Your task to perform on an android device: Add dell alienware to the cart on walmart Image 0: 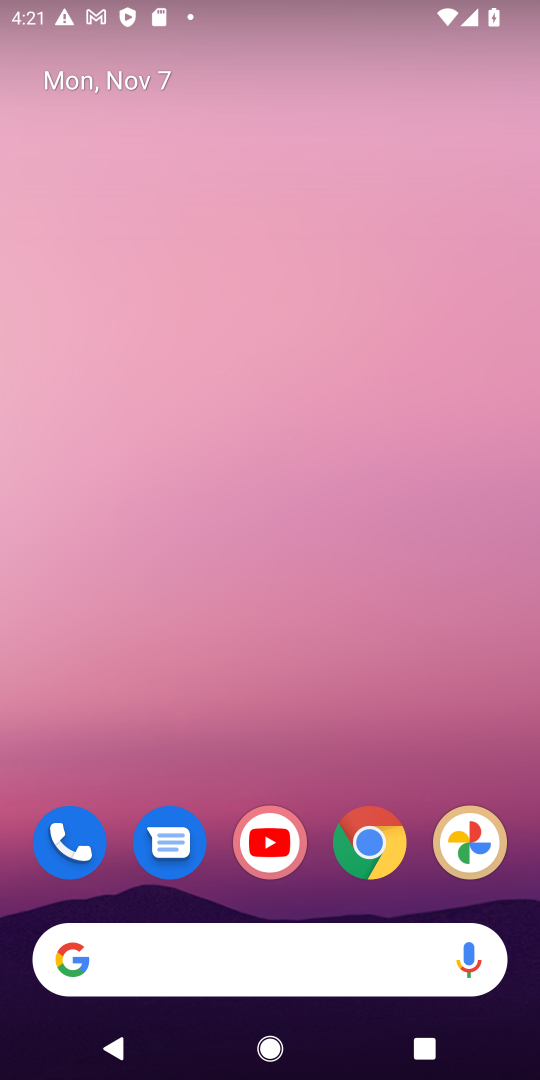
Step 0: drag from (203, 811) to (345, 10)
Your task to perform on an android device: Add dell alienware to the cart on walmart Image 1: 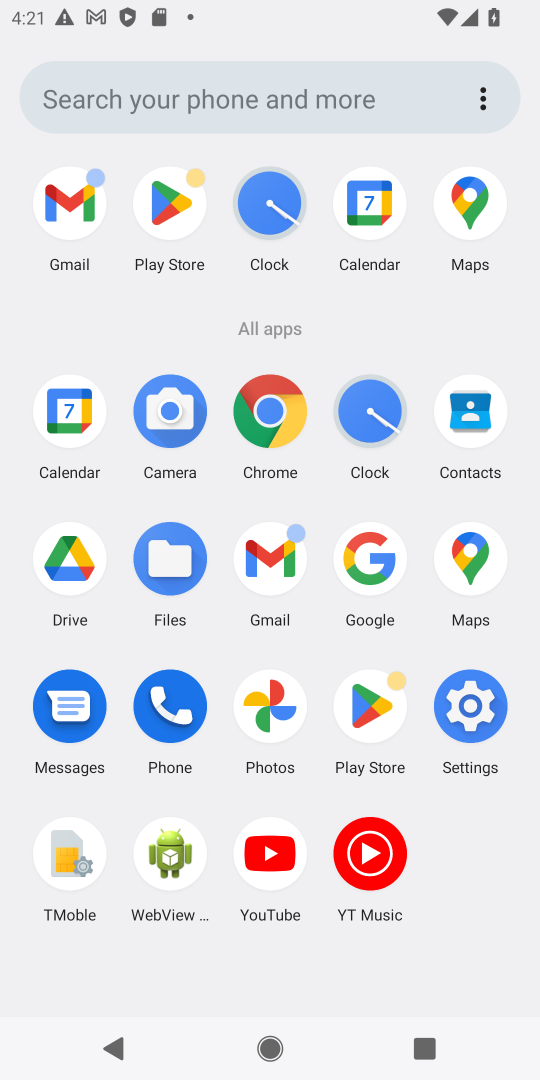
Step 1: click (274, 411)
Your task to perform on an android device: Add dell alienware to the cart on walmart Image 2: 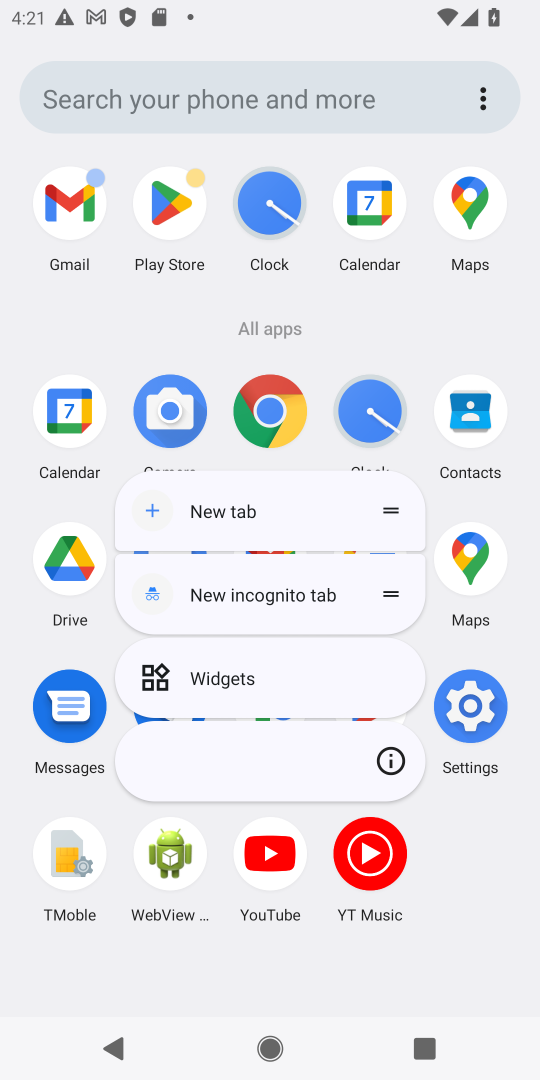
Step 2: click (274, 411)
Your task to perform on an android device: Add dell alienware to the cart on walmart Image 3: 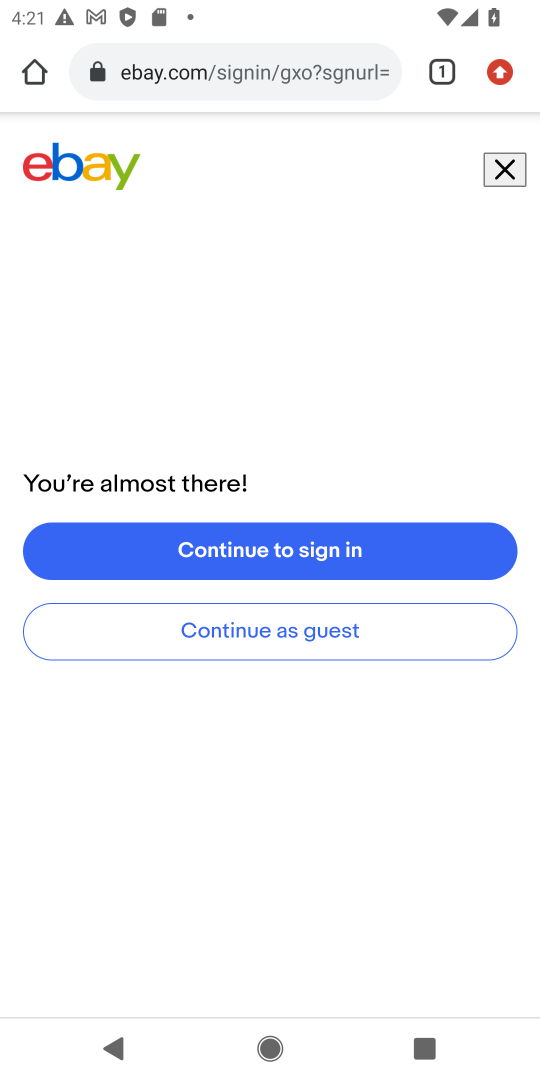
Step 3: click (301, 69)
Your task to perform on an android device: Add dell alienware to the cart on walmart Image 4: 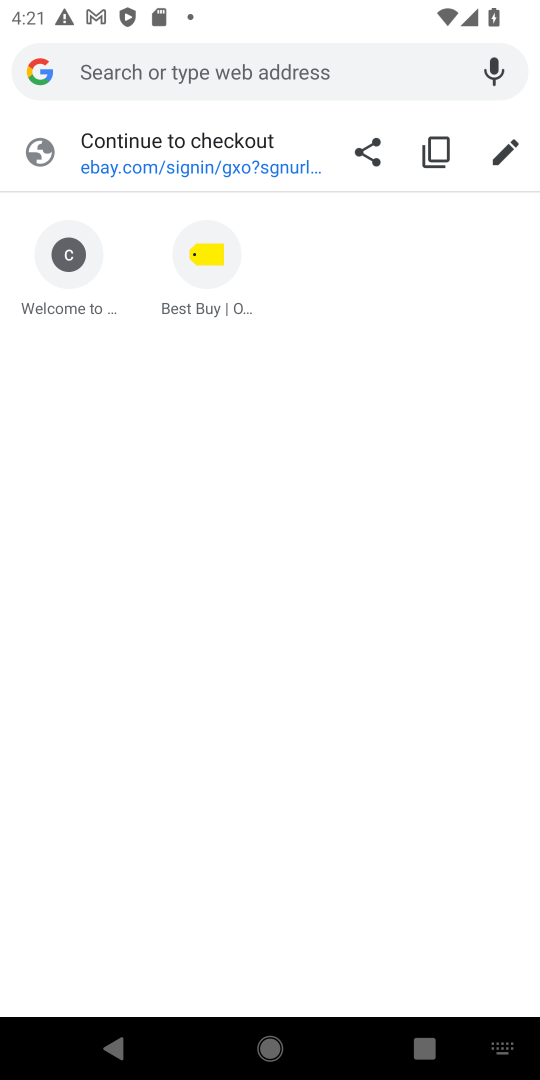
Step 4: type "walmart"
Your task to perform on an android device: Add dell alienware to the cart on walmart Image 5: 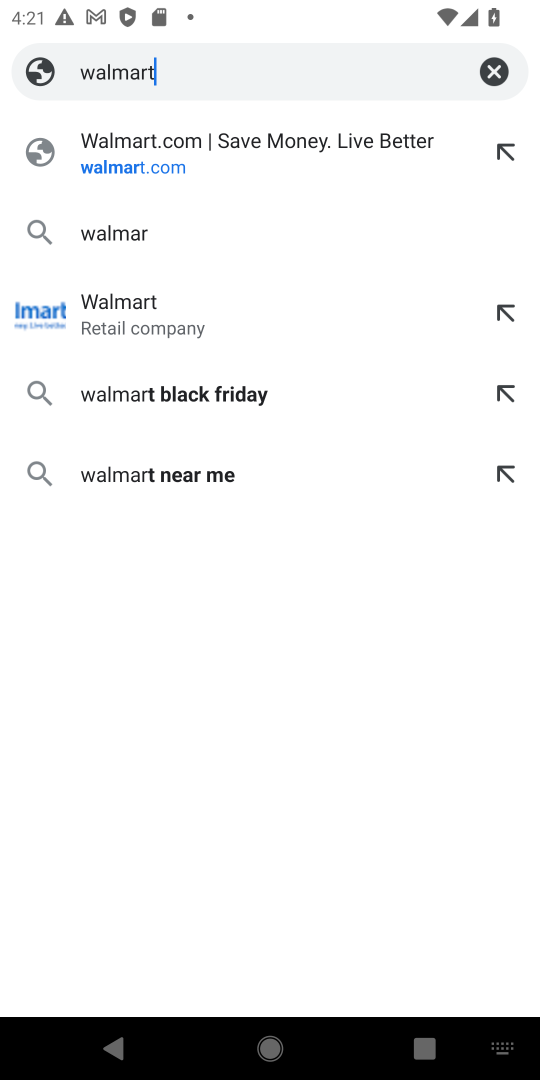
Step 5: press enter
Your task to perform on an android device: Add dell alienware to the cart on walmart Image 6: 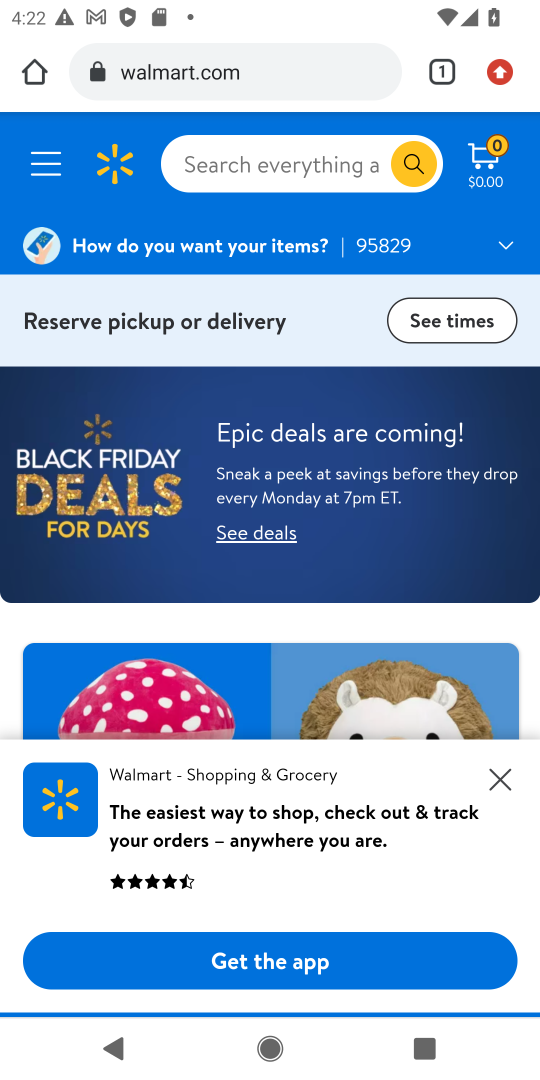
Step 6: click (269, 154)
Your task to perform on an android device: Add dell alienware to the cart on walmart Image 7: 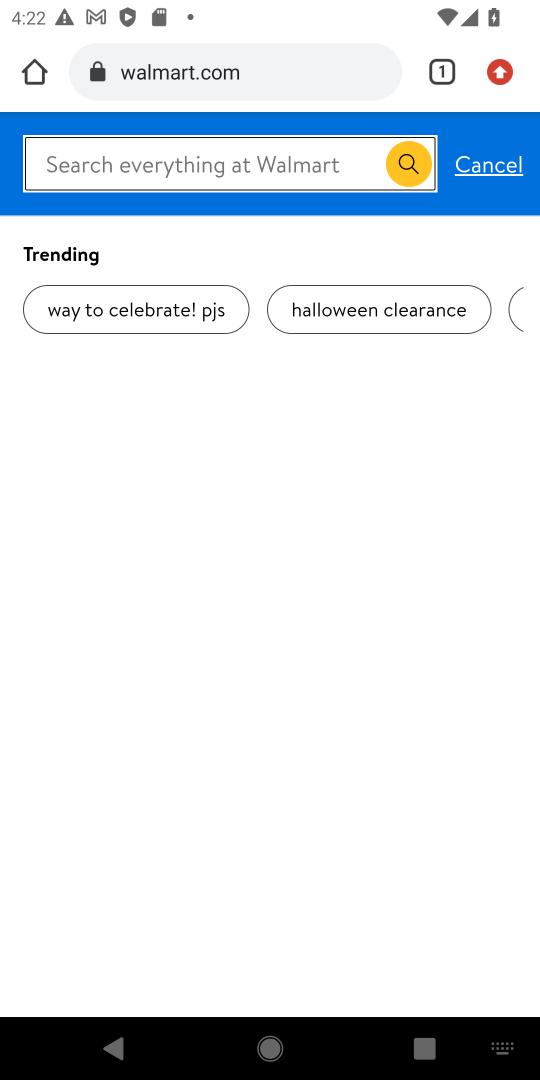
Step 7: type "dell alienware"
Your task to perform on an android device: Add dell alienware to the cart on walmart Image 8: 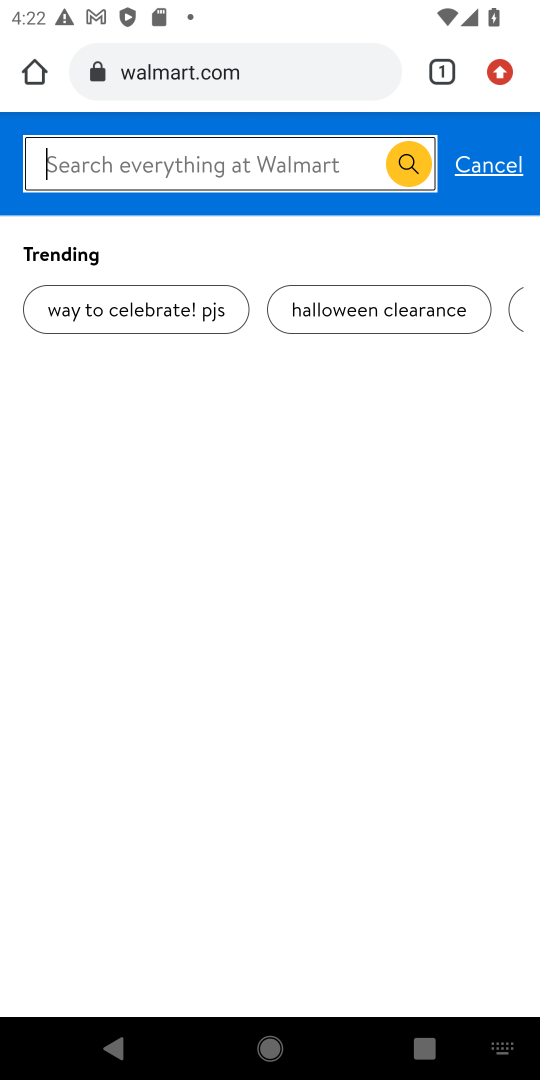
Step 8: press enter
Your task to perform on an android device: Add dell alienware to the cart on walmart Image 9: 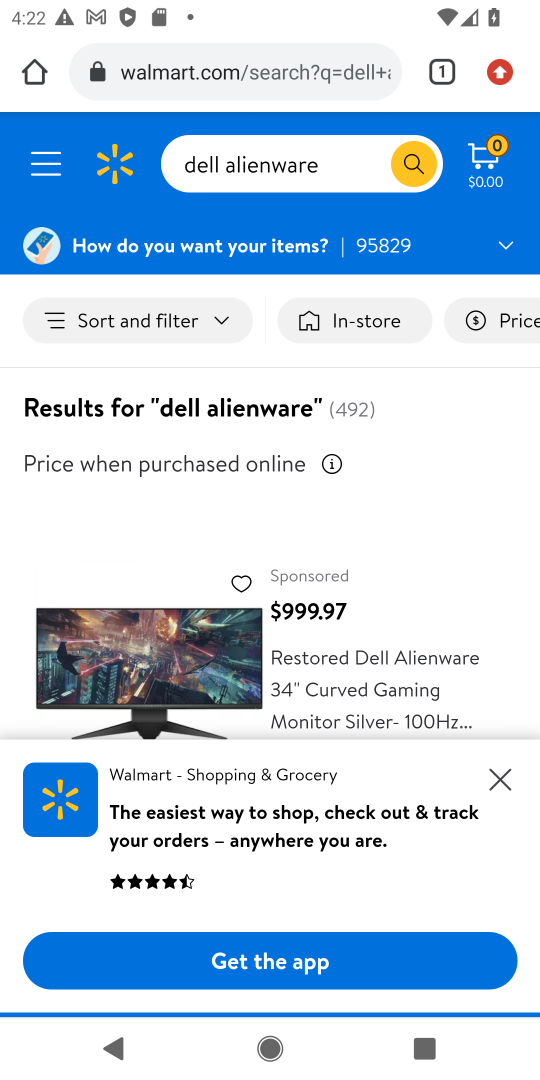
Step 9: click (500, 771)
Your task to perform on an android device: Add dell alienware to the cart on walmart Image 10: 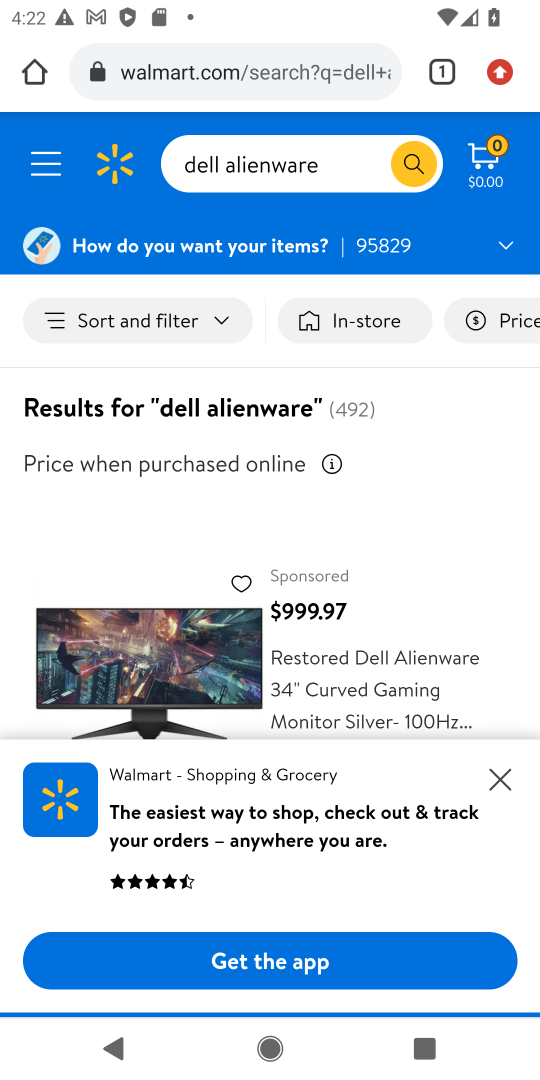
Step 10: click (503, 783)
Your task to perform on an android device: Add dell alienware to the cart on walmart Image 11: 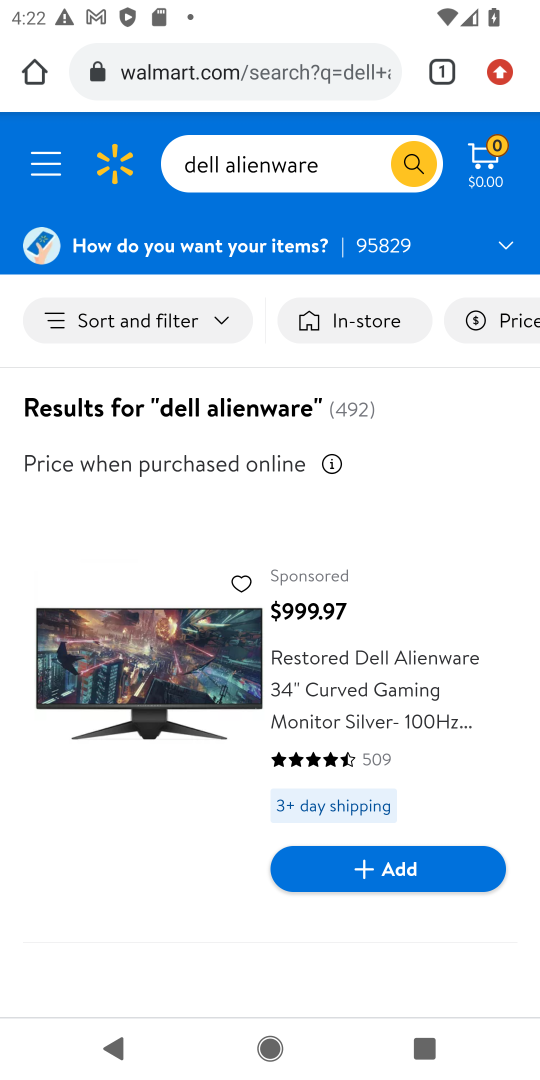
Step 11: click (391, 867)
Your task to perform on an android device: Add dell alienware to the cart on walmart Image 12: 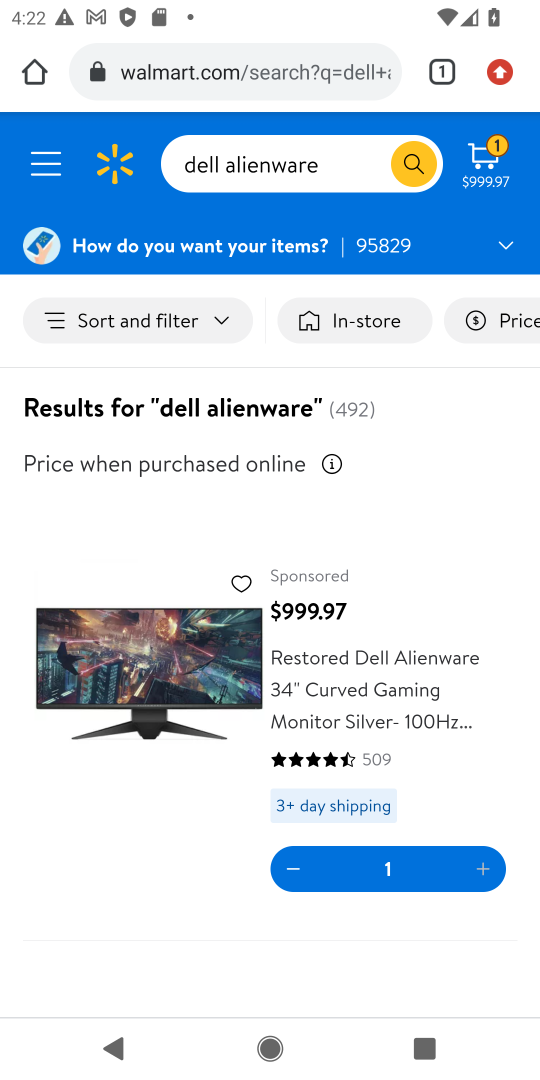
Step 12: task complete